Your task to perform on an android device: turn on priority inbox in the gmail app Image 0: 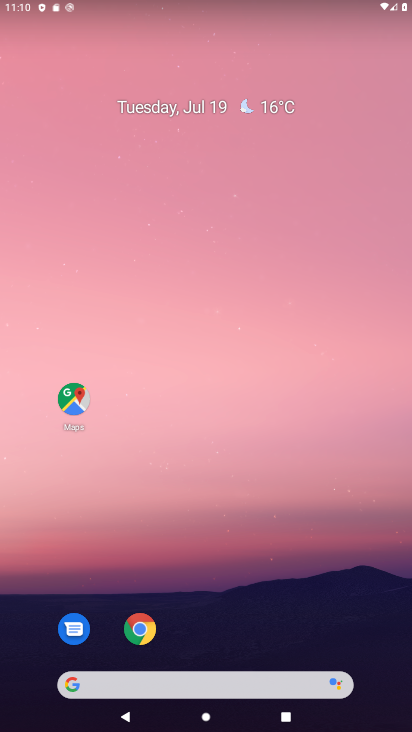
Step 0: drag from (380, 673) to (303, 129)
Your task to perform on an android device: turn on priority inbox in the gmail app Image 1: 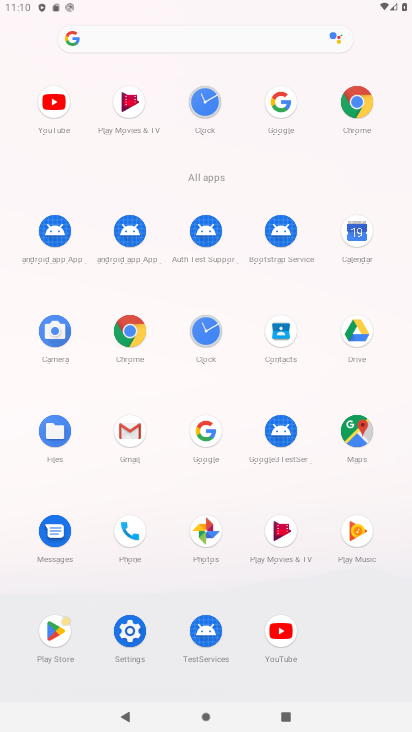
Step 1: click (131, 432)
Your task to perform on an android device: turn on priority inbox in the gmail app Image 2: 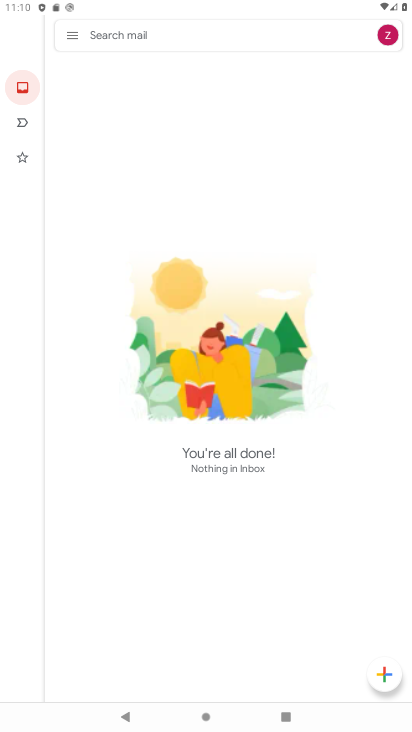
Step 2: click (62, 29)
Your task to perform on an android device: turn on priority inbox in the gmail app Image 3: 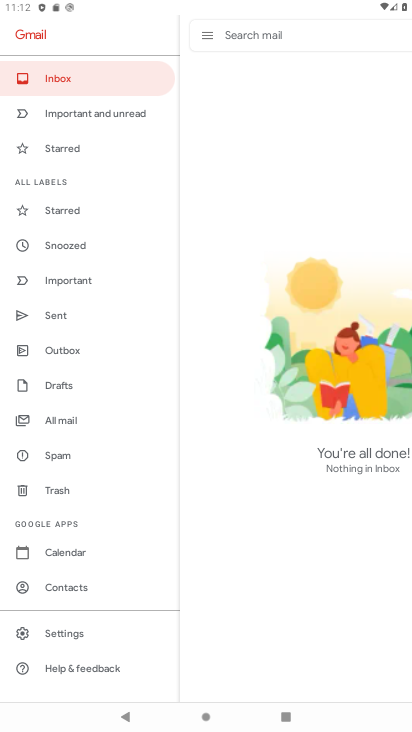
Step 3: click (59, 631)
Your task to perform on an android device: turn on priority inbox in the gmail app Image 4: 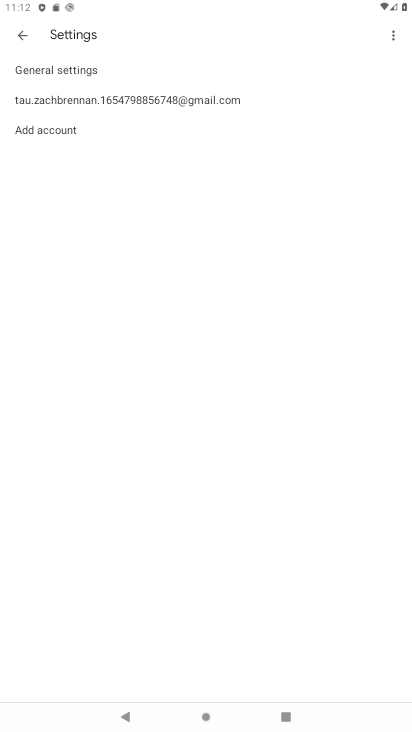
Step 4: click (74, 93)
Your task to perform on an android device: turn on priority inbox in the gmail app Image 5: 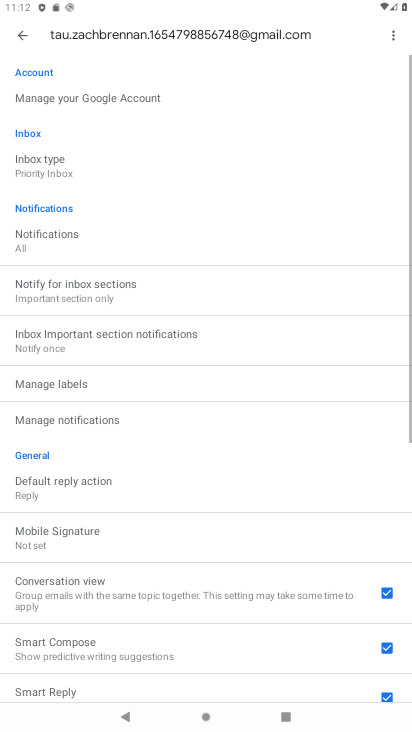
Step 5: click (34, 166)
Your task to perform on an android device: turn on priority inbox in the gmail app Image 6: 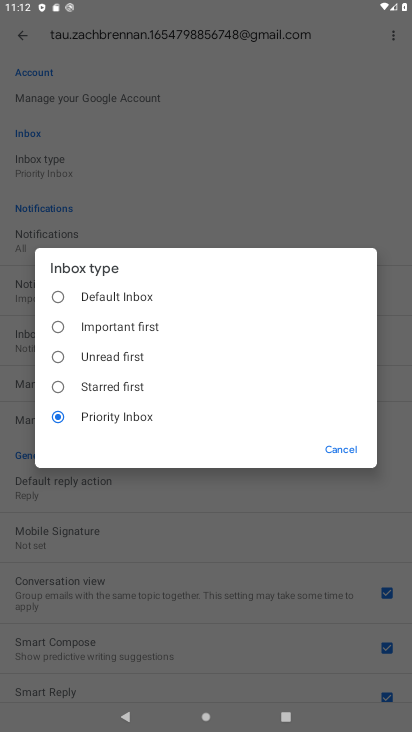
Step 6: task complete